Your task to perform on an android device: set an alarm Image 0: 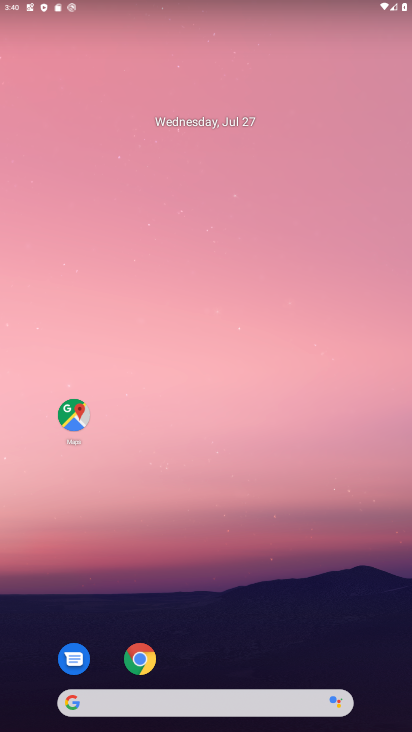
Step 0: drag from (240, 633) to (203, 52)
Your task to perform on an android device: set an alarm Image 1: 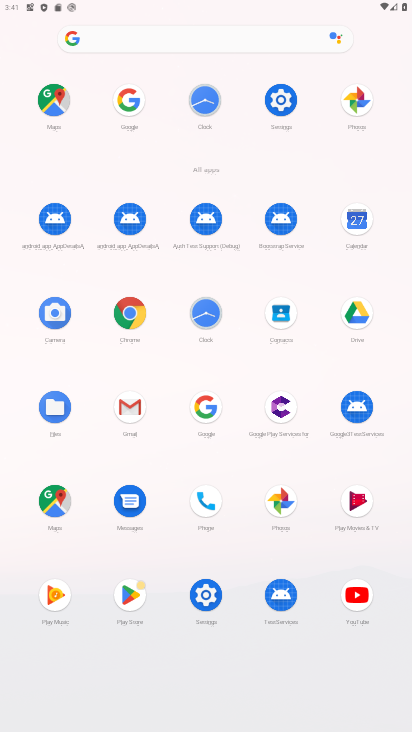
Step 1: click (206, 102)
Your task to perform on an android device: set an alarm Image 2: 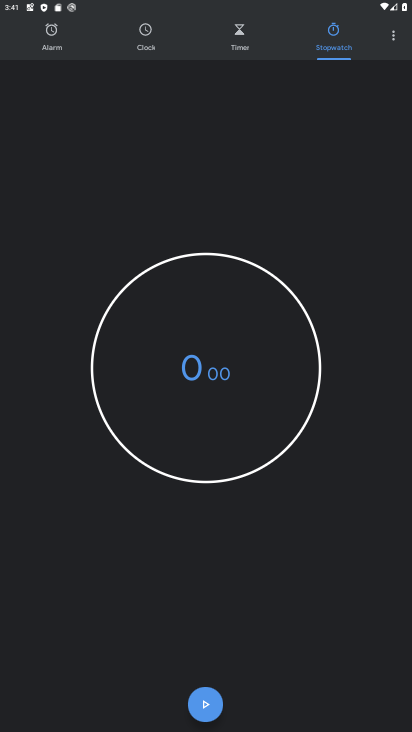
Step 2: click (55, 42)
Your task to perform on an android device: set an alarm Image 3: 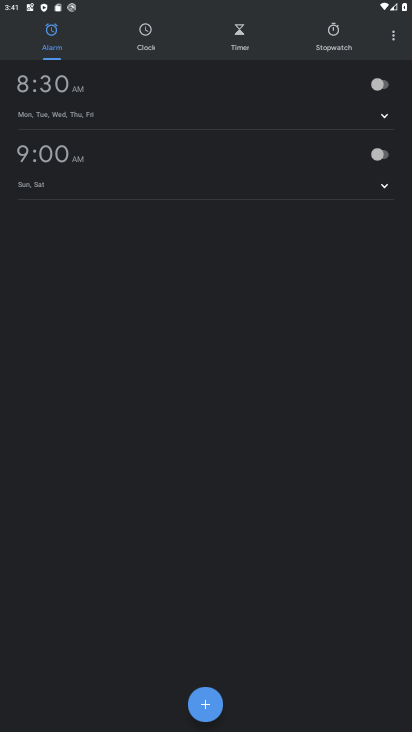
Step 3: click (197, 701)
Your task to perform on an android device: set an alarm Image 4: 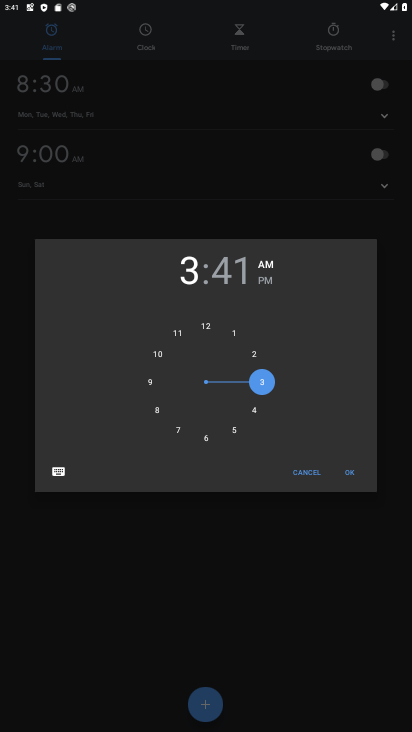
Step 4: click (349, 472)
Your task to perform on an android device: set an alarm Image 5: 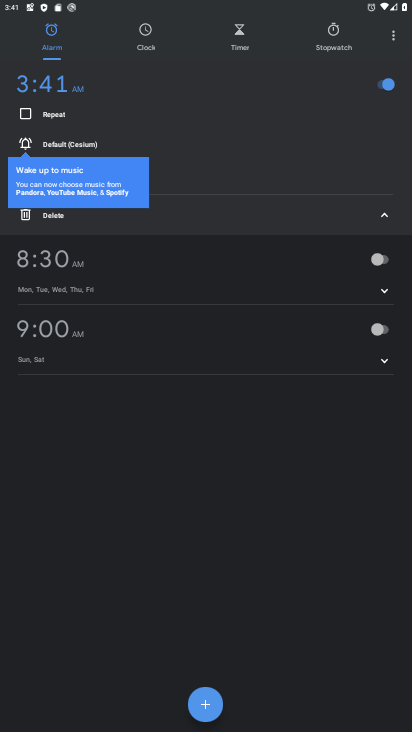
Step 5: task complete